Your task to perform on an android device: open a bookmark in the chrome app Image 0: 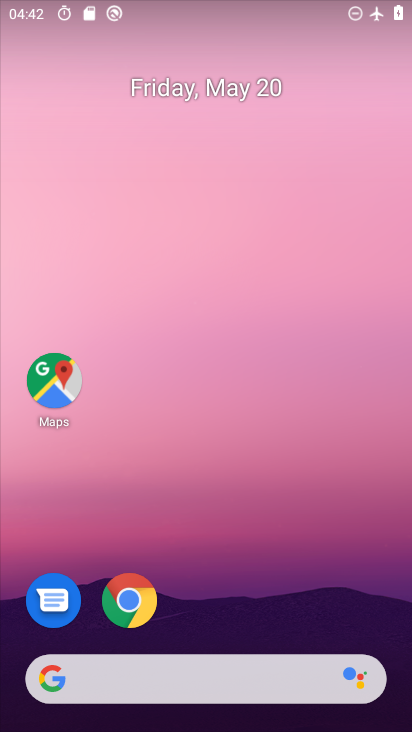
Step 0: click (129, 592)
Your task to perform on an android device: open a bookmark in the chrome app Image 1: 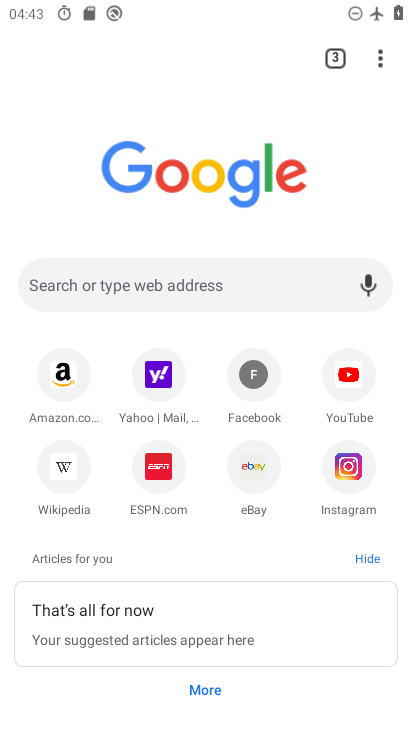
Step 1: click (382, 60)
Your task to perform on an android device: open a bookmark in the chrome app Image 2: 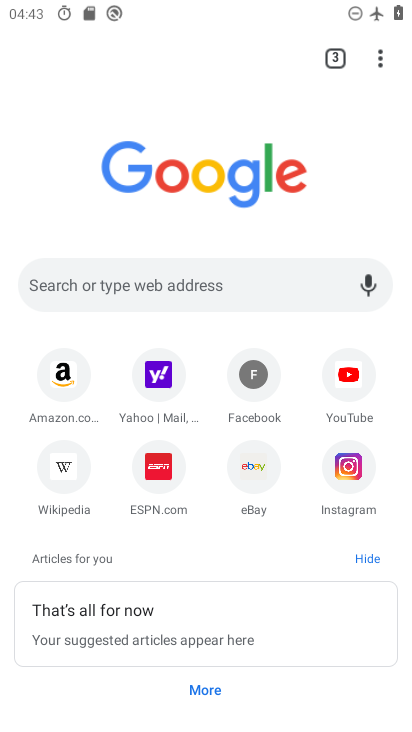
Step 2: drag from (385, 61) to (176, 217)
Your task to perform on an android device: open a bookmark in the chrome app Image 3: 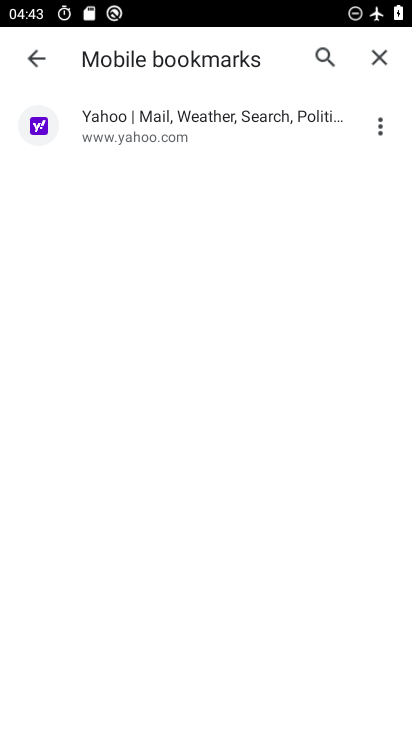
Step 3: click (165, 119)
Your task to perform on an android device: open a bookmark in the chrome app Image 4: 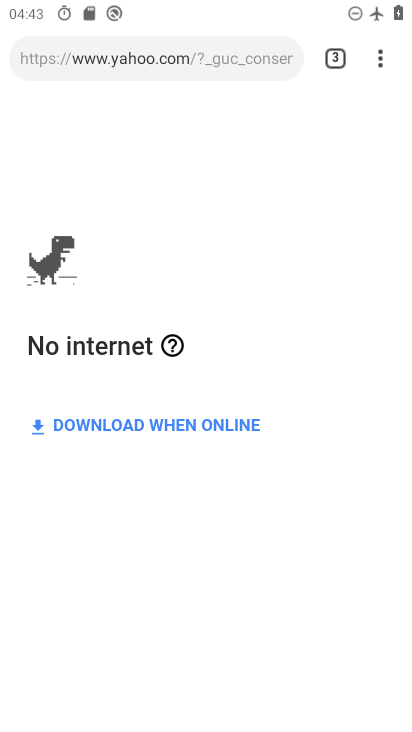
Step 4: task complete